Your task to perform on an android device: toggle priority inbox in the gmail app Image 0: 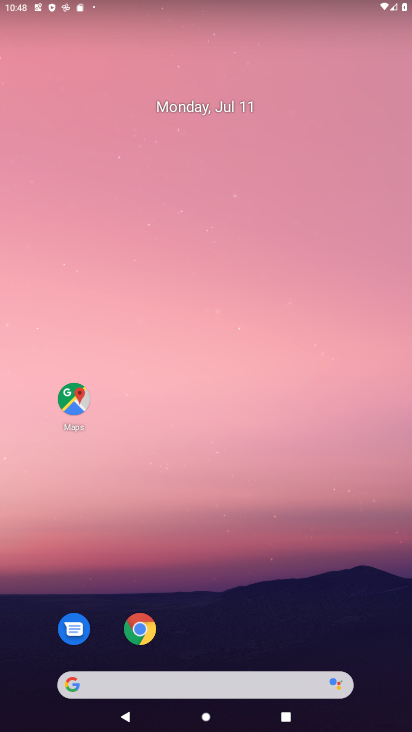
Step 0: drag from (243, 635) to (236, 67)
Your task to perform on an android device: toggle priority inbox in the gmail app Image 1: 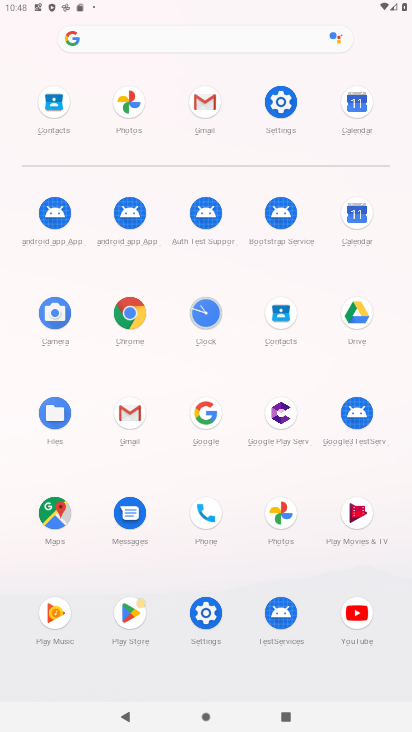
Step 1: click (195, 120)
Your task to perform on an android device: toggle priority inbox in the gmail app Image 2: 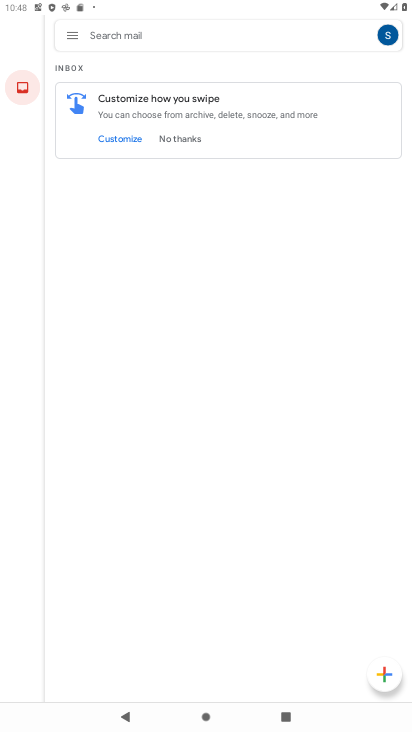
Step 2: click (60, 32)
Your task to perform on an android device: toggle priority inbox in the gmail app Image 3: 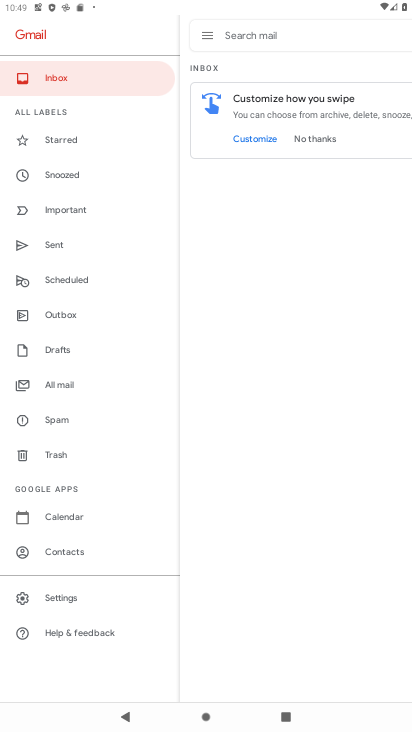
Step 3: click (47, 588)
Your task to perform on an android device: toggle priority inbox in the gmail app Image 4: 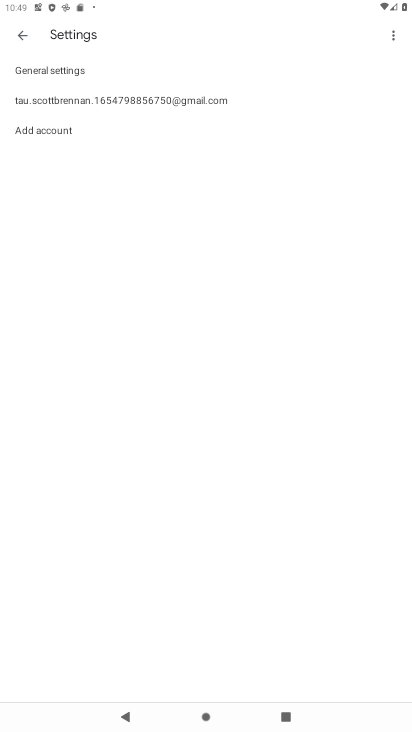
Step 4: click (88, 98)
Your task to perform on an android device: toggle priority inbox in the gmail app Image 5: 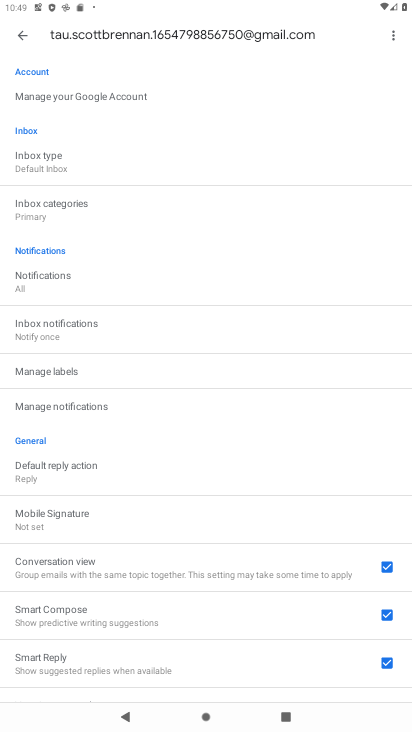
Step 5: task complete